Your task to perform on an android device: toggle improve location accuracy Image 0: 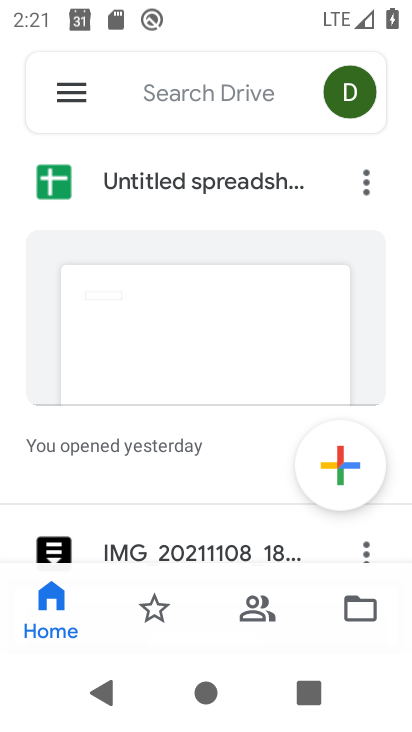
Step 0: press back button
Your task to perform on an android device: toggle improve location accuracy Image 1: 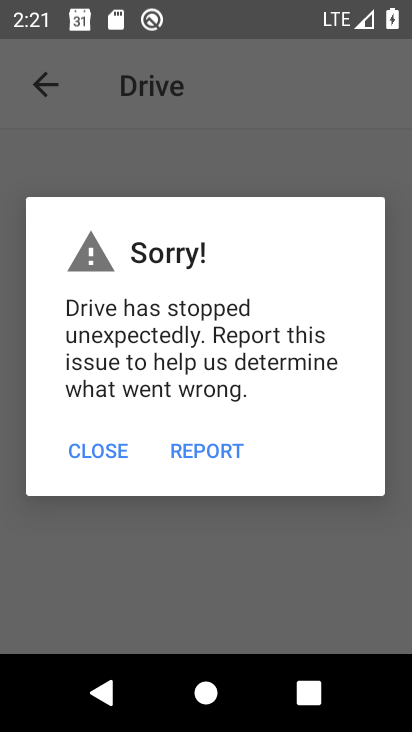
Step 1: press home button
Your task to perform on an android device: toggle improve location accuracy Image 2: 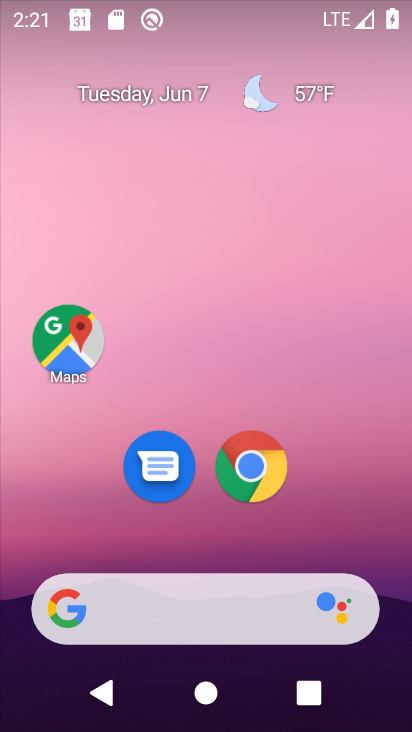
Step 2: drag from (207, 563) to (295, 42)
Your task to perform on an android device: toggle improve location accuracy Image 3: 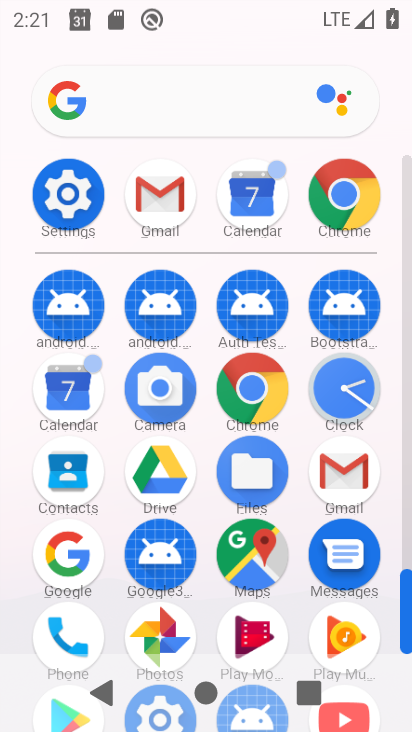
Step 3: click (71, 196)
Your task to perform on an android device: toggle improve location accuracy Image 4: 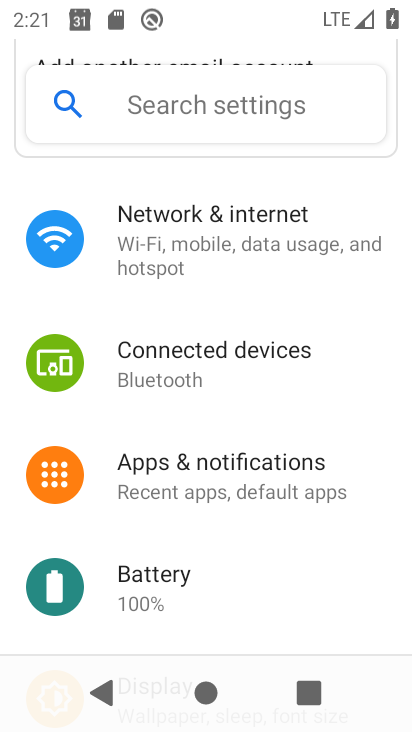
Step 4: drag from (216, 566) to (312, 95)
Your task to perform on an android device: toggle improve location accuracy Image 5: 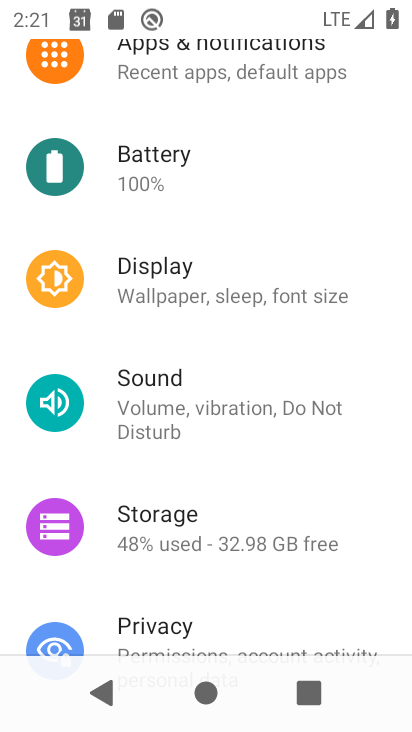
Step 5: drag from (241, 540) to (330, 135)
Your task to perform on an android device: toggle improve location accuracy Image 6: 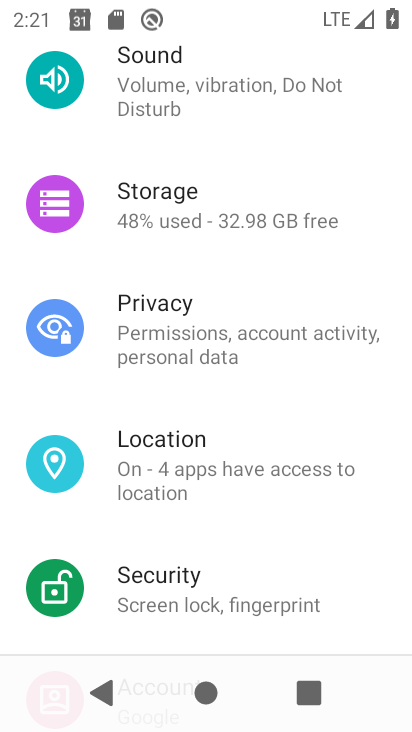
Step 6: click (144, 467)
Your task to perform on an android device: toggle improve location accuracy Image 7: 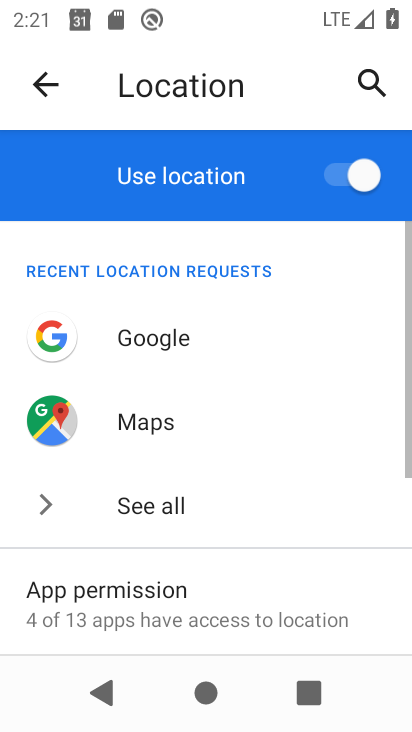
Step 7: drag from (183, 617) to (285, 124)
Your task to perform on an android device: toggle improve location accuracy Image 8: 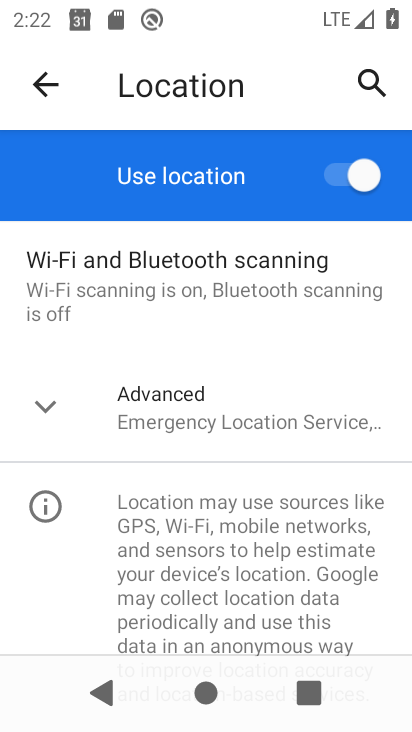
Step 8: click (189, 437)
Your task to perform on an android device: toggle improve location accuracy Image 9: 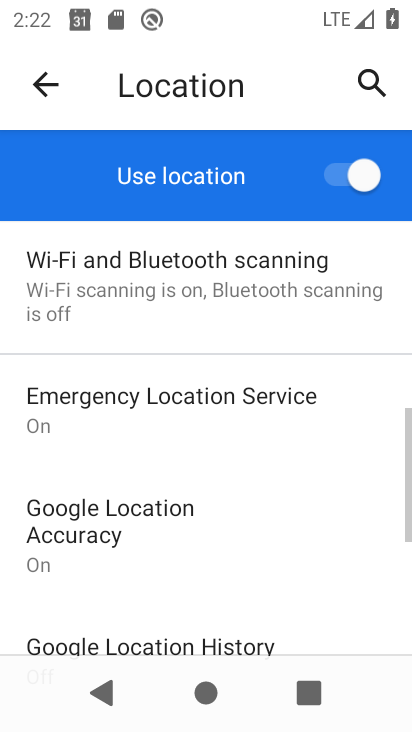
Step 9: click (121, 515)
Your task to perform on an android device: toggle improve location accuracy Image 10: 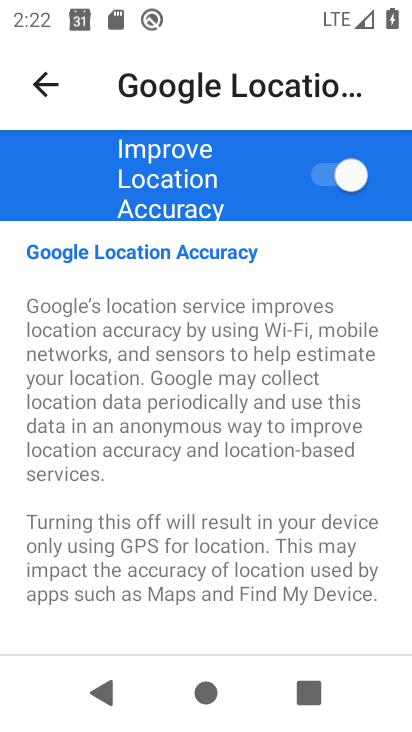
Step 10: click (356, 160)
Your task to perform on an android device: toggle improve location accuracy Image 11: 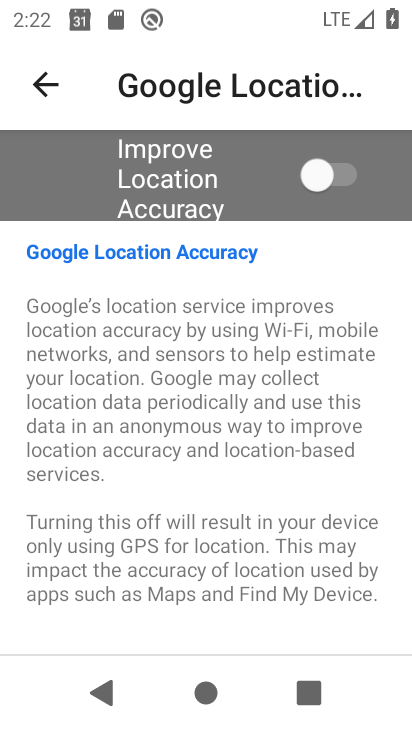
Step 11: task complete